Your task to perform on an android device: show emergency info Image 0: 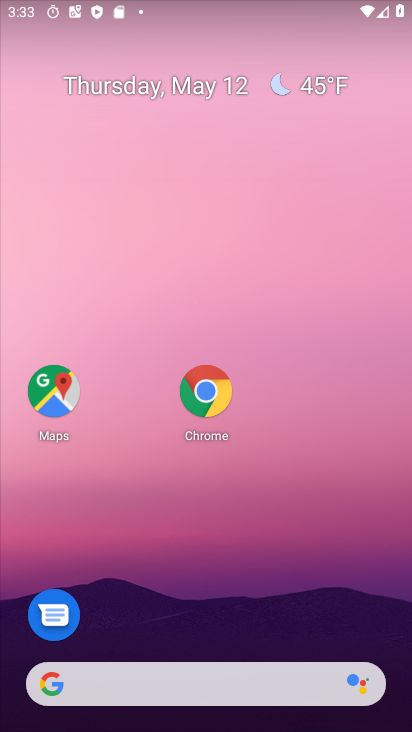
Step 0: drag from (197, 557) to (202, 74)
Your task to perform on an android device: show emergency info Image 1: 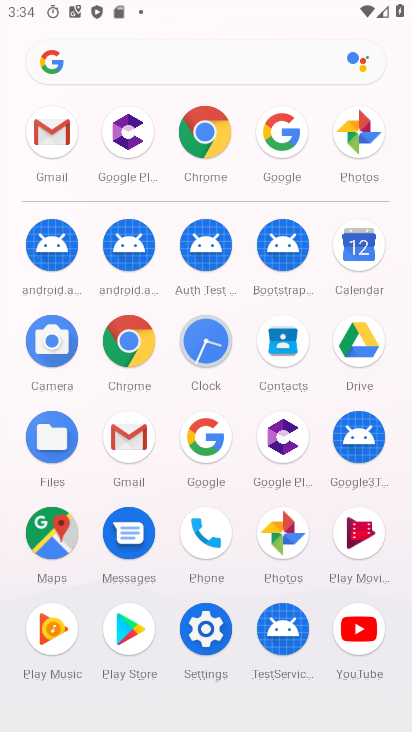
Step 1: click (206, 626)
Your task to perform on an android device: show emergency info Image 2: 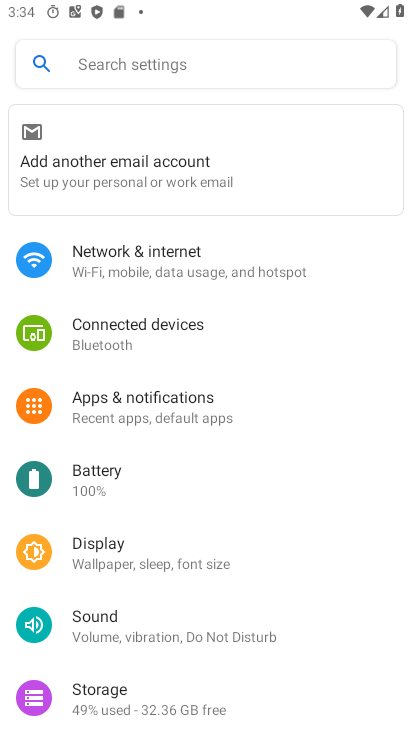
Step 2: drag from (205, 624) to (233, 134)
Your task to perform on an android device: show emergency info Image 3: 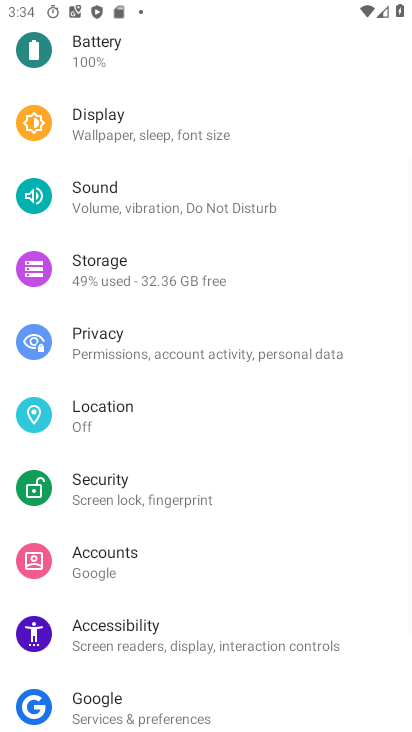
Step 3: drag from (221, 612) to (276, 122)
Your task to perform on an android device: show emergency info Image 4: 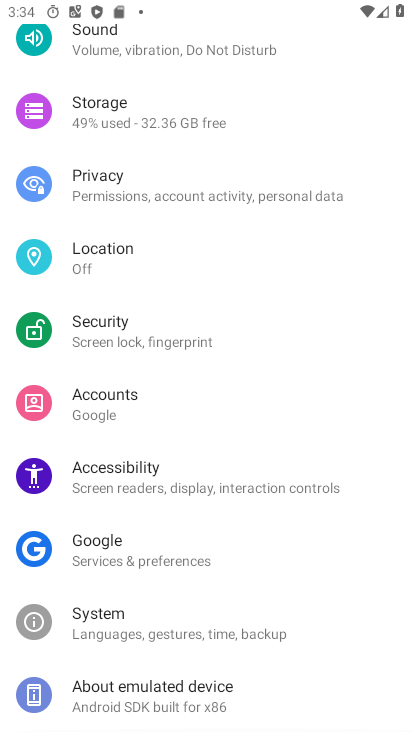
Step 4: click (192, 699)
Your task to perform on an android device: show emergency info Image 5: 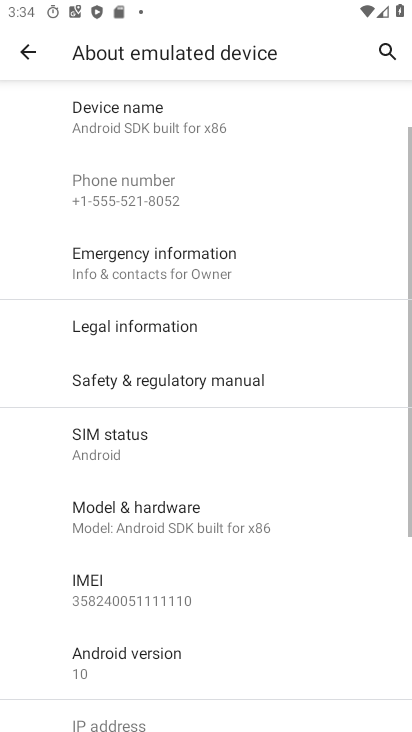
Step 5: click (139, 267)
Your task to perform on an android device: show emergency info Image 6: 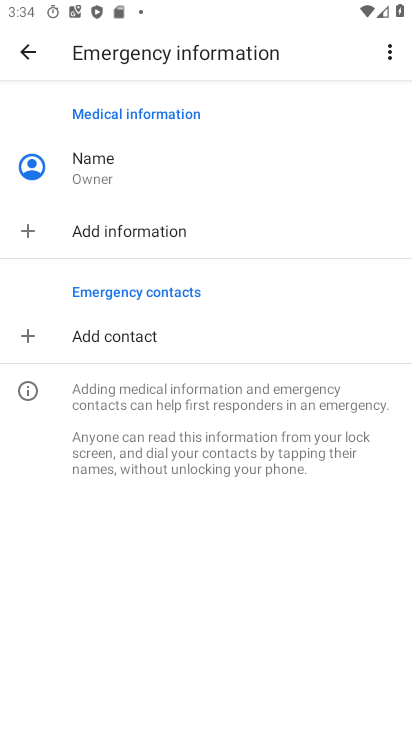
Step 6: task complete